Your task to perform on an android device: check battery use Image 0: 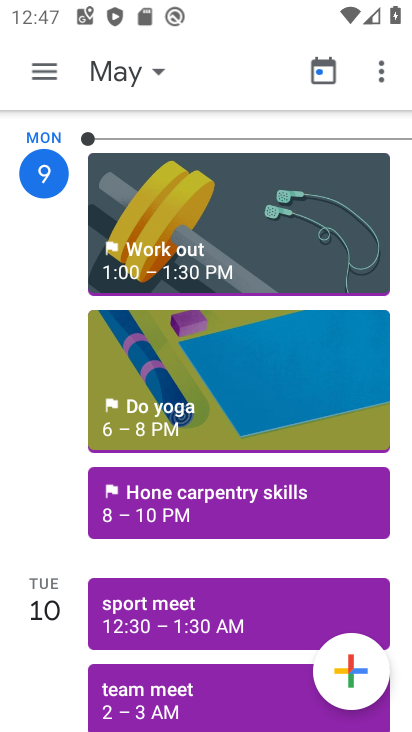
Step 0: press home button
Your task to perform on an android device: check battery use Image 1: 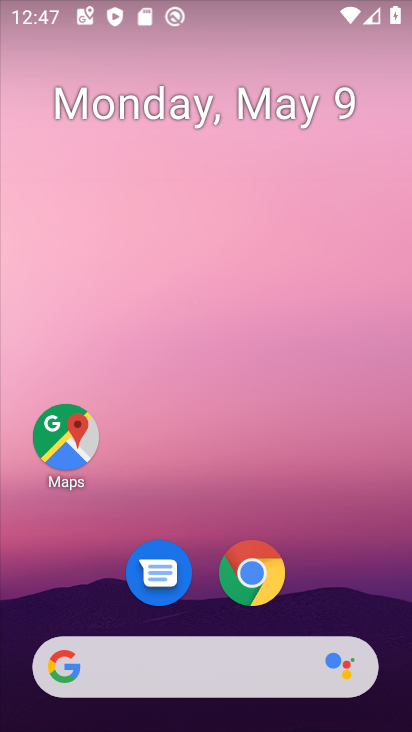
Step 1: drag from (351, 552) to (235, 144)
Your task to perform on an android device: check battery use Image 2: 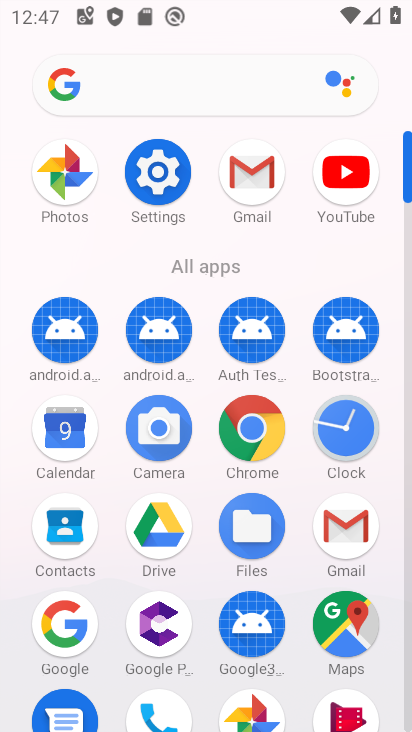
Step 2: click (175, 163)
Your task to perform on an android device: check battery use Image 3: 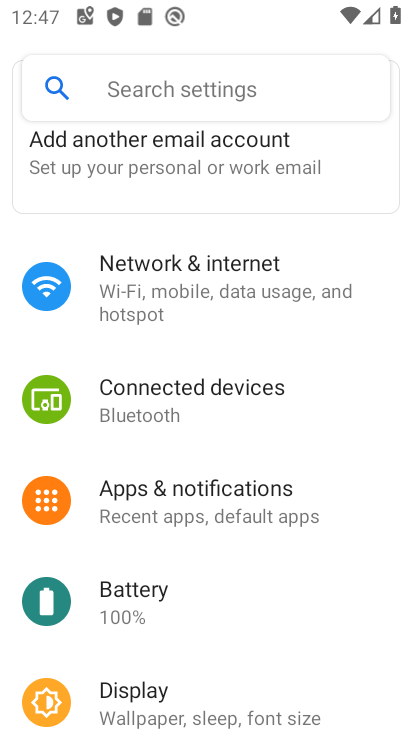
Step 3: click (143, 600)
Your task to perform on an android device: check battery use Image 4: 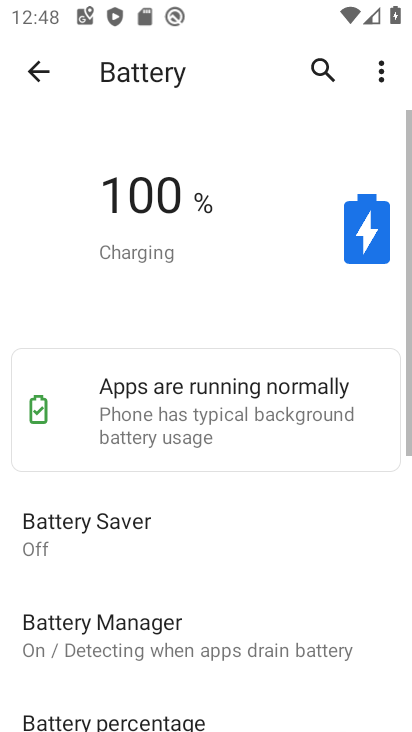
Step 4: click (154, 615)
Your task to perform on an android device: check battery use Image 5: 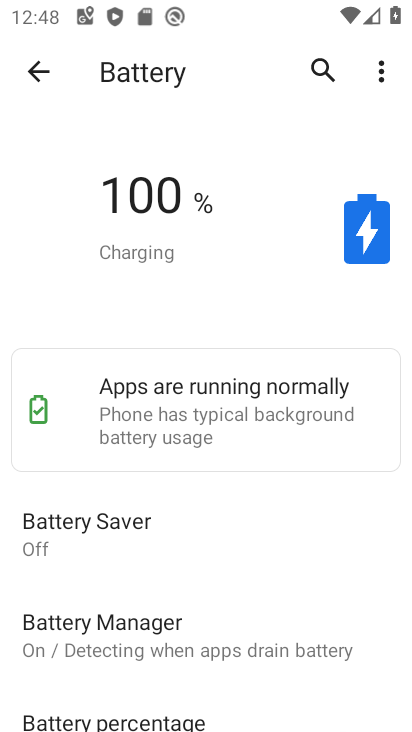
Step 5: task complete